Your task to perform on an android device: Open calendar and show me the second week of next month Image 0: 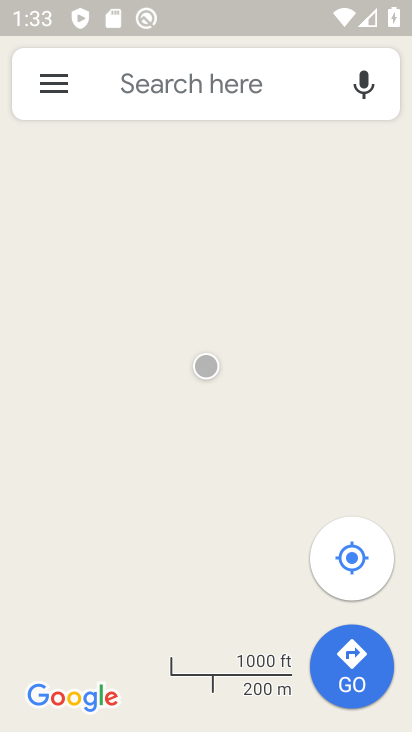
Step 0: drag from (325, 483) to (280, 32)
Your task to perform on an android device: Open calendar and show me the second week of next month Image 1: 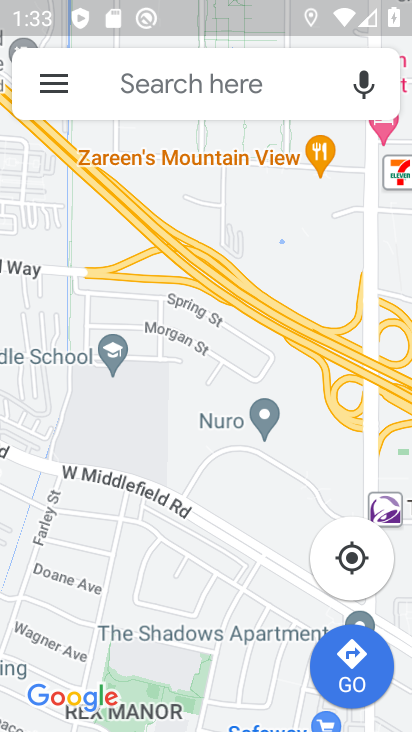
Step 1: click (49, 78)
Your task to perform on an android device: Open calendar and show me the second week of next month Image 2: 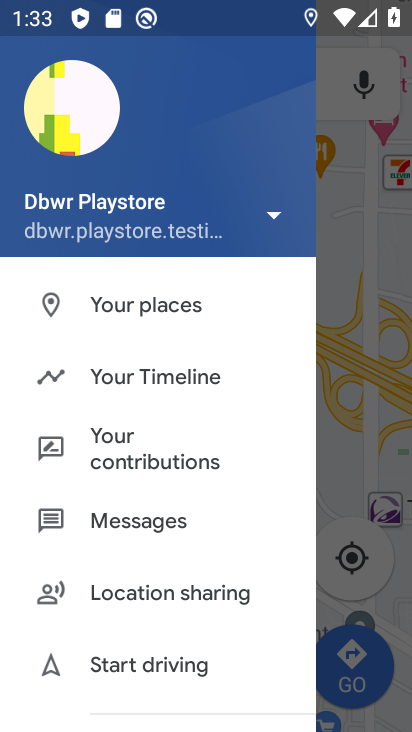
Step 2: press home button
Your task to perform on an android device: Open calendar and show me the second week of next month Image 3: 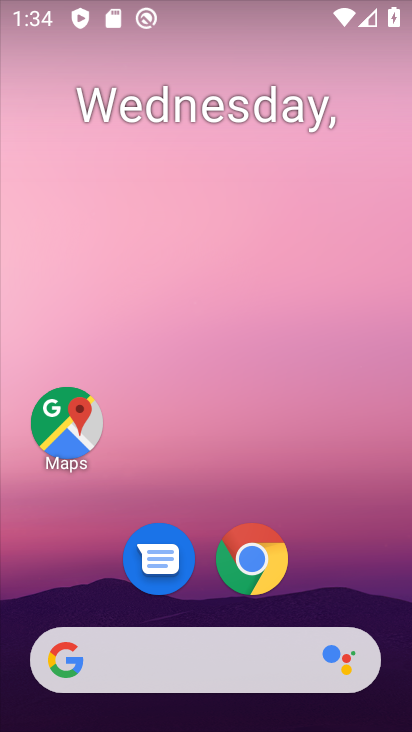
Step 3: drag from (334, 526) to (335, 32)
Your task to perform on an android device: Open calendar and show me the second week of next month Image 4: 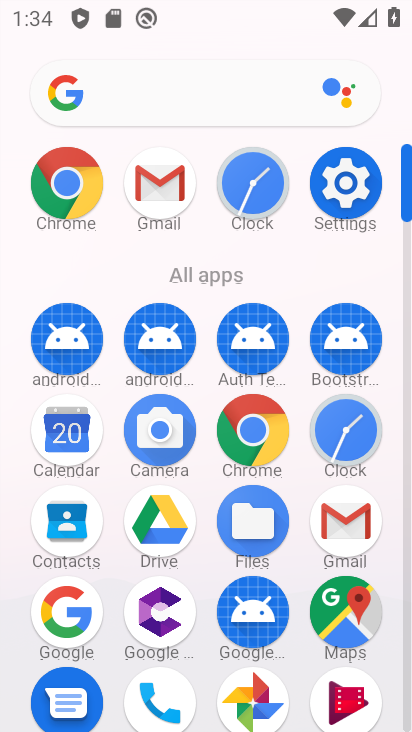
Step 4: click (61, 487)
Your task to perform on an android device: Open calendar and show me the second week of next month Image 5: 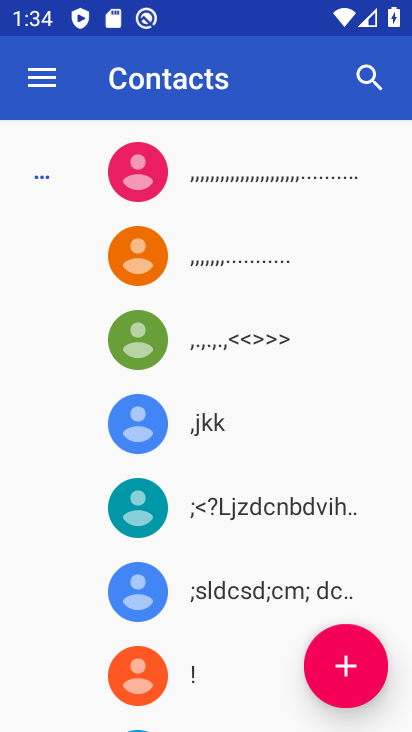
Step 5: press home button
Your task to perform on an android device: Open calendar and show me the second week of next month Image 6: 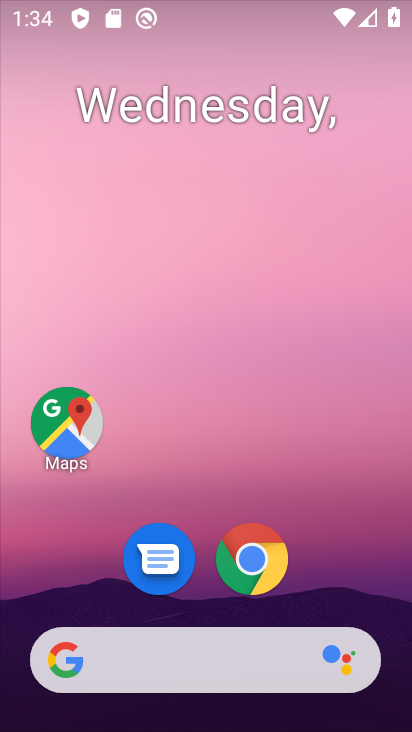
Step 6: drag from (262, 534) to (188, 39)
Your task to perform on an android device: Open calendar and show me the second week of next month Image 7: 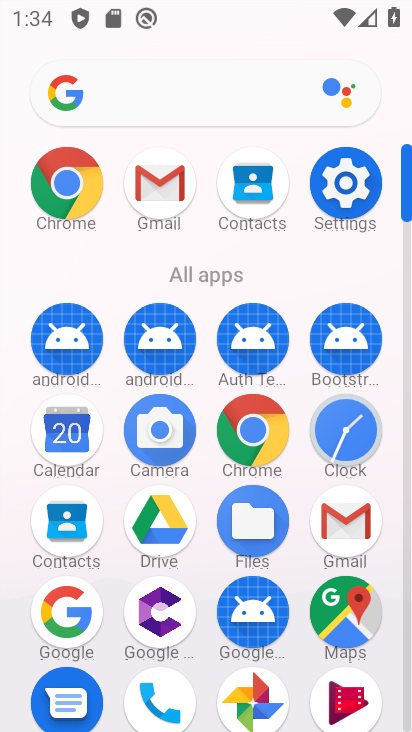
Step 7: click (68, 455)
Your task to perform on an android device: Open calendar and show me the second week of next month Image 8: 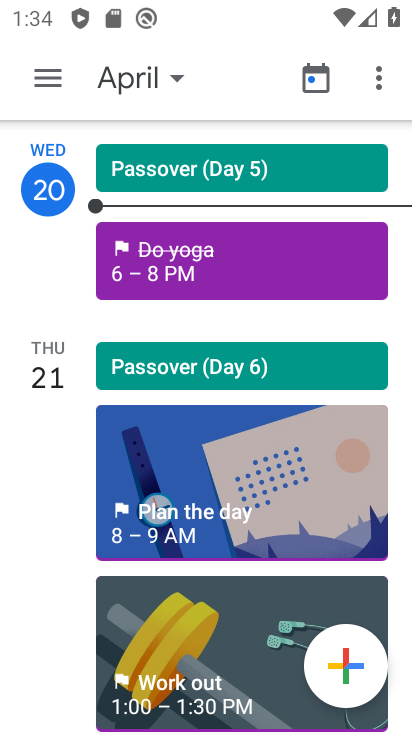
Step 8: click (159, 74)
Your task to perform on an android device: Open calendar and show me the second week of next month Image 9: 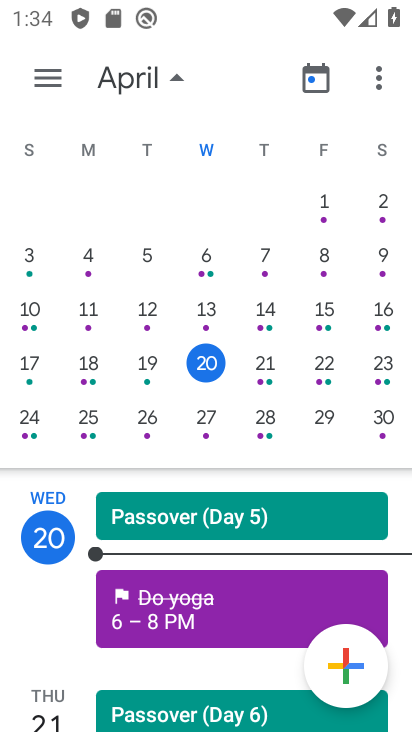
Step 9: drag from (394, 255) to (97, 309)
Your task to perform on an android device: Open calendar and show me the second week of next month Image 10: 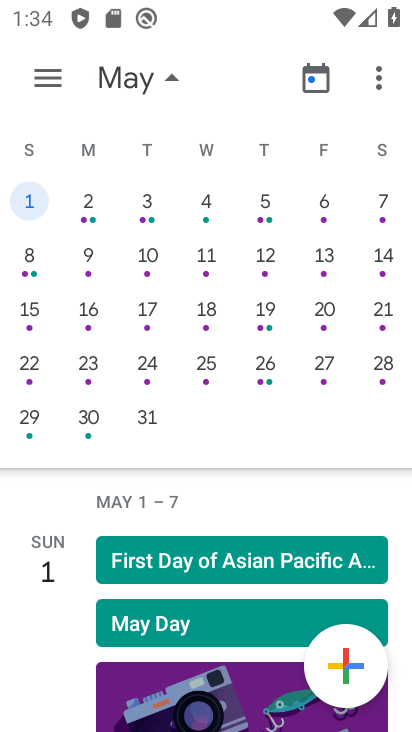
Step 10: click (22, 254)
Your task to perform on an android device: Open calendar and show me the second week of next month Image 11: 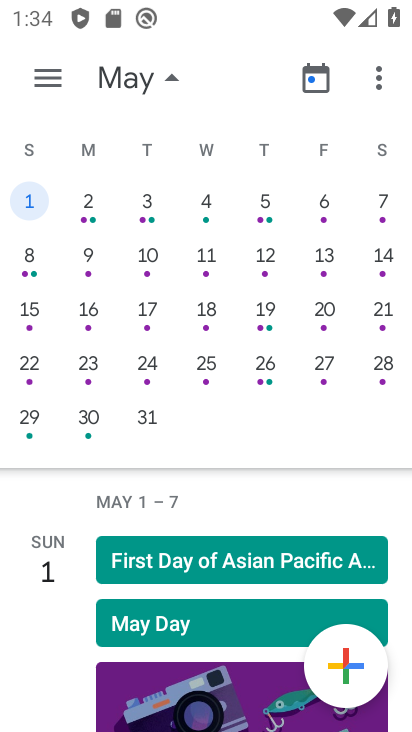
Step 11: task complete